Your task to perform on an android device: Is it going to rain today? Image 0: 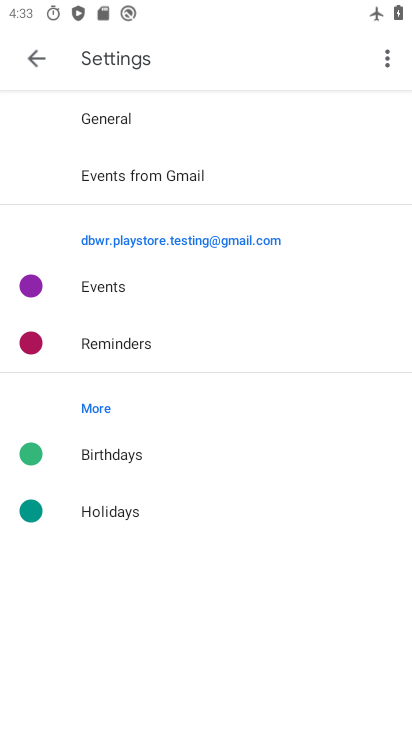
Step 0: press home button
Your task to perform on an android device: Is it going to rain today? Image 1: 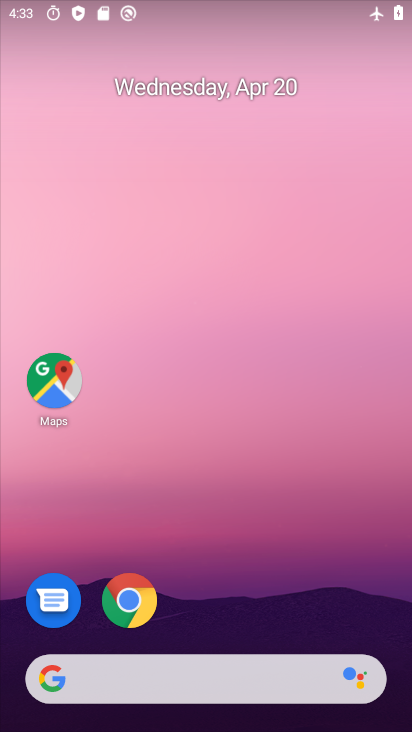
Step 1: drag from (307, 410) to (314, 56)
Your task to perform on an android device: Is it going to rain today? Image 2: 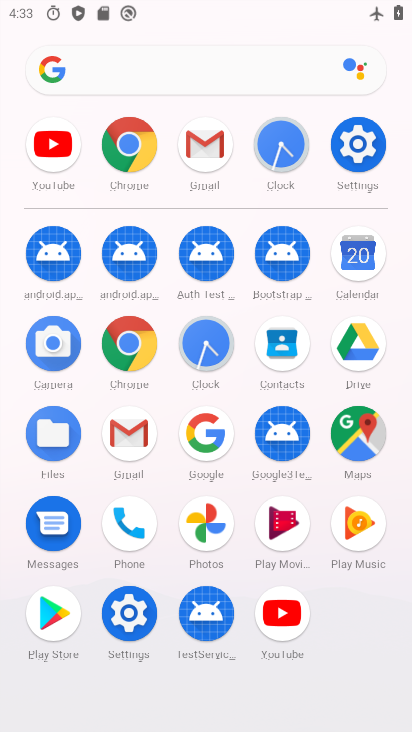
Step 2: click (134, 336)
Your task to perform on an android device: Is it going to rain today? Image 3: 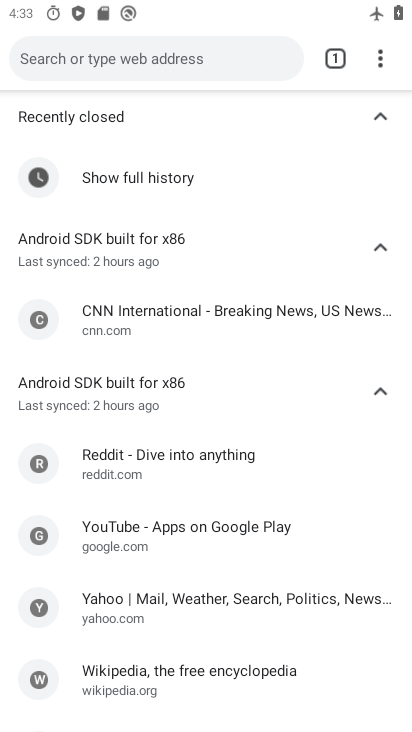
Step 3: click (169, 65)
Your task to perform on an android device: Is it going to rain today? Image 4: 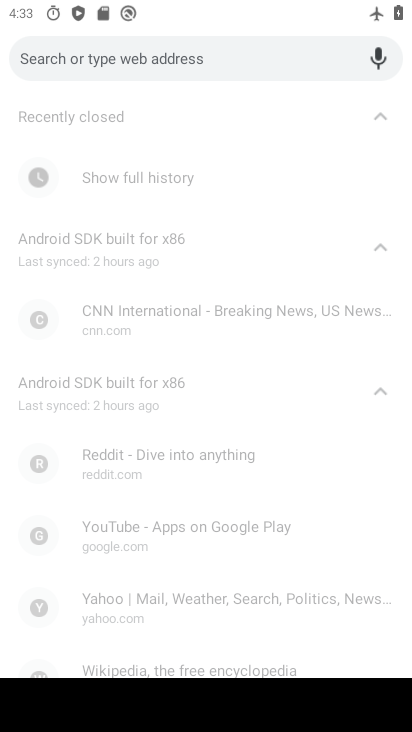
Step 4: type "weater"
Your task to perform on an android device: Is it going to rain today? Image 5: 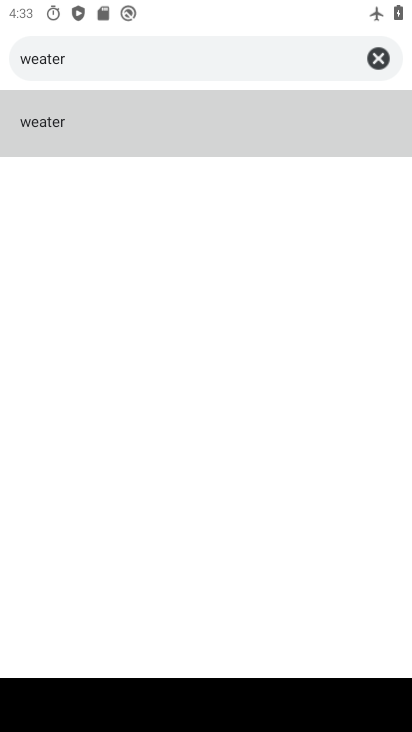
Step 5: click (26, 122)
Your task to perform on an android device: Is it going to rain today? Image 6: 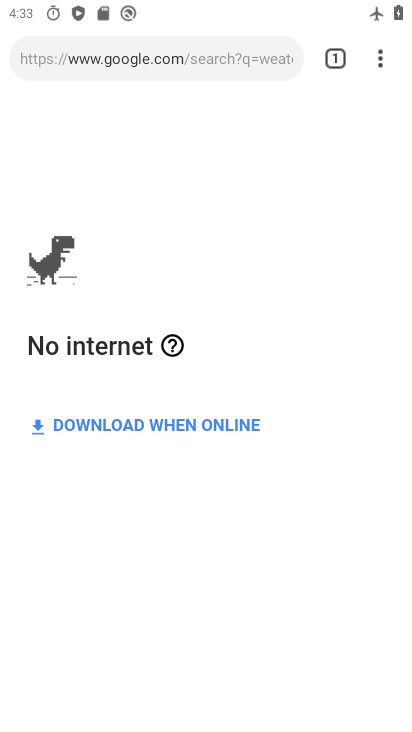
Step 6: type "weather"
Your task to perform on an android device: Is it going to rain today? Image 7: 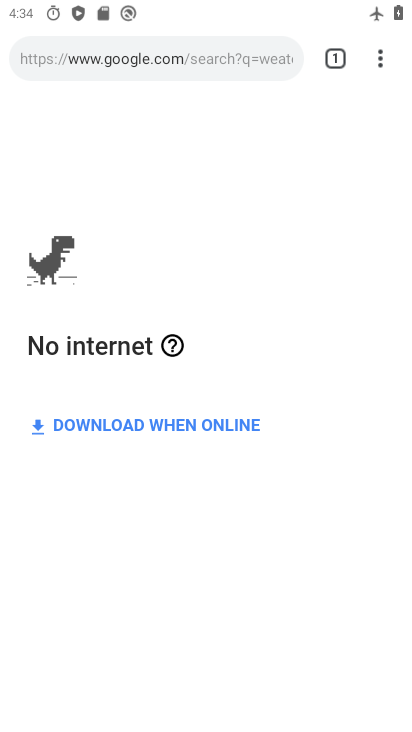
Step 7: task complete